Your task to perform on an android device: find which apps use the phone's location Image 0: 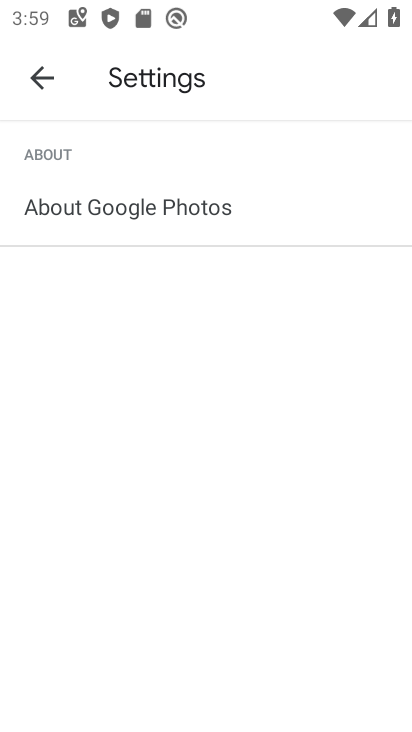
Step 0: press home button
Your task to perform on an android device: find which apps use the phone's location Image 1: 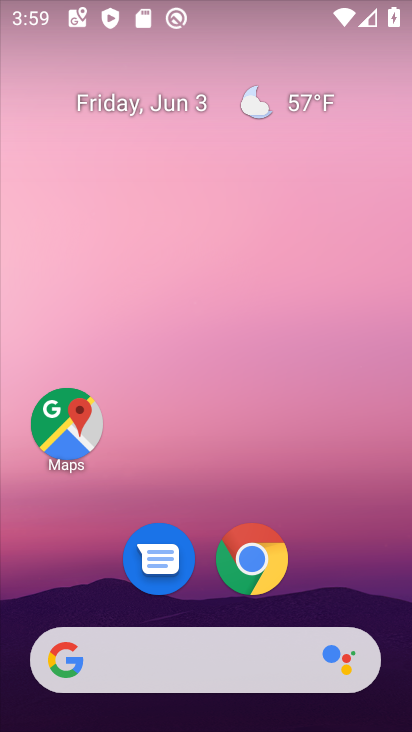
Step 1: drag from (312, 561) to (286, 59)
Your task to perform on an android device: find which apps use the phone's location Image 2: 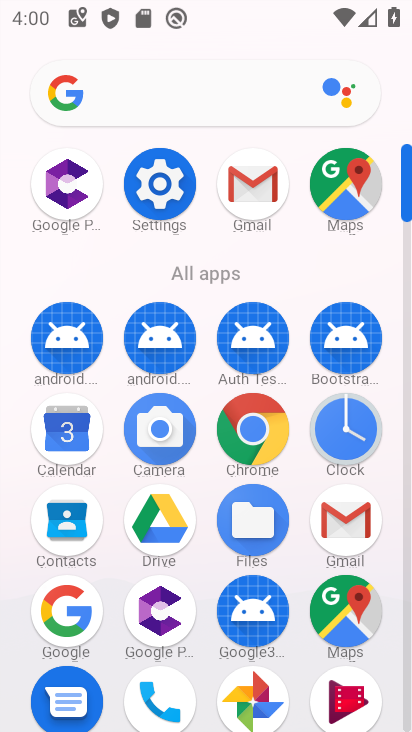
Step 2: drag from (202, 319) to (212, 69)
Your task to perform on an android device: find which apps use the phone's location Image 3: 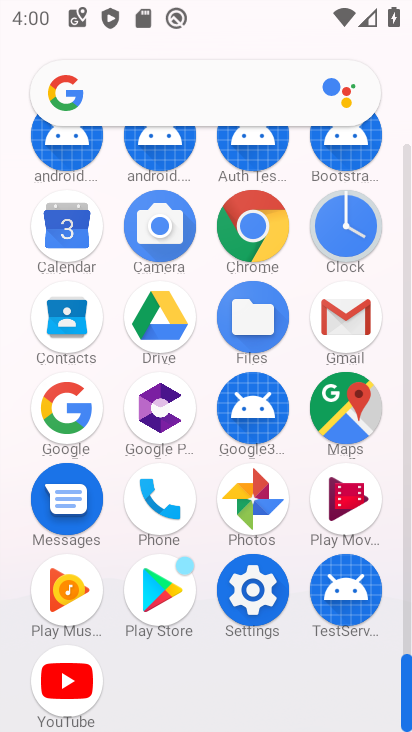
Step 3: click (156, 492)
Your task to perform on an android device: find which apps use the phone's location Image 4: 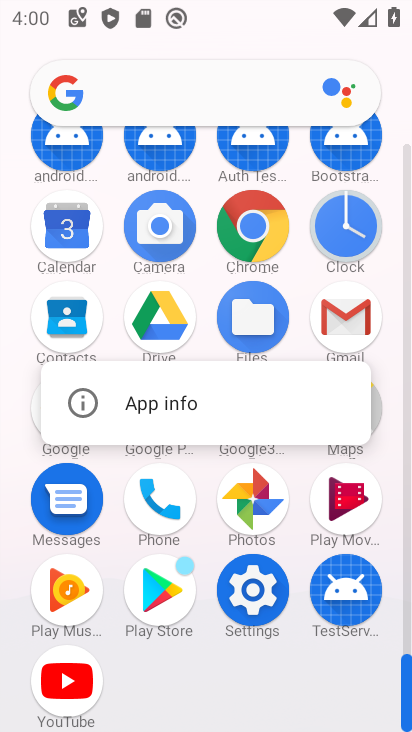
Step 4: click (173, 406)
Your task to perform on an android device: find which apps use the phone's location Image 5: 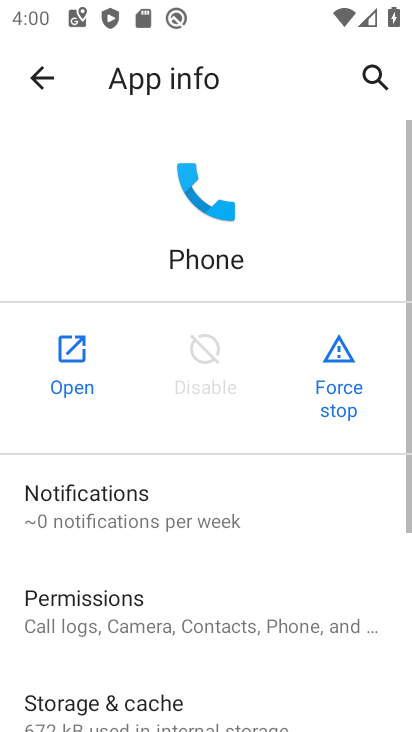
Step 5: drag from (292, 568) to (300, 374)
Your task to perform on an android device: find which apps use the phone's location Image 6: 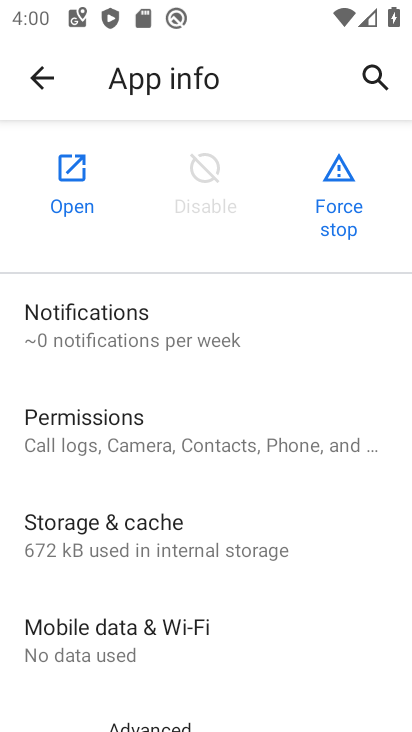
Step 6: click (177, 426)
Your task to perform on an android device: find which apps use the phone's location Image 7: 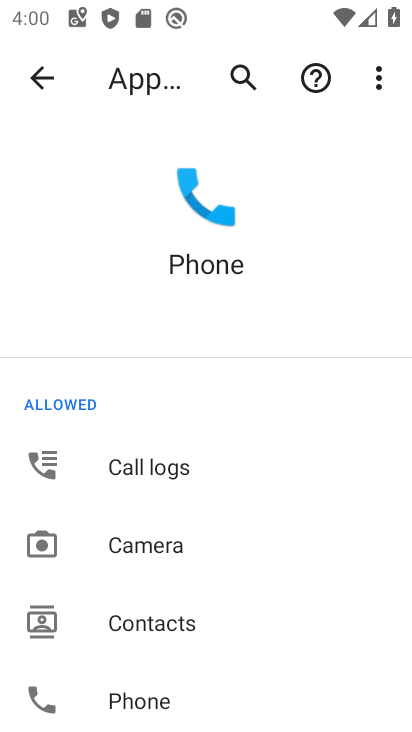
Step 7: drag from (251, 626) to (259, 339)
Your task to perform on an android device: find which apps use the phone's location Image 8: 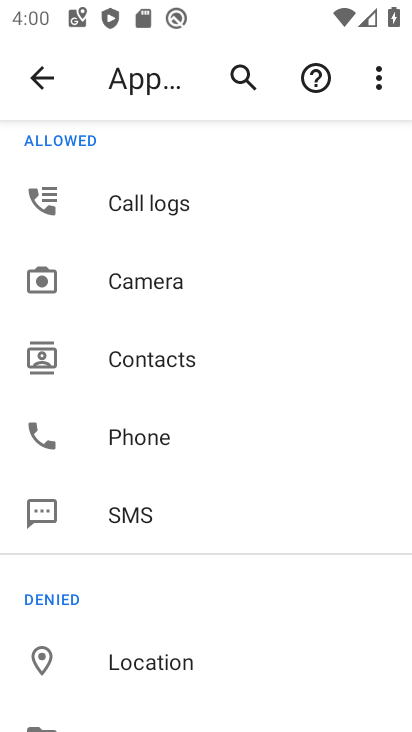
Step 8: click (136, 653)
Your task to perform on an android device: find which apps use the phone's location Image 9: 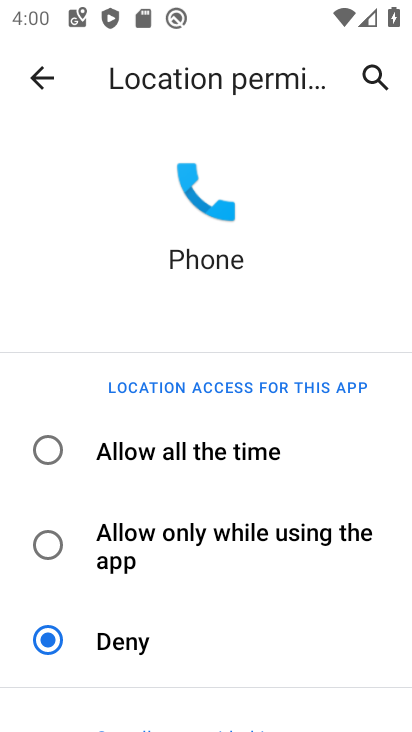
Step 9: task complete